Your task to perform on an android device: Search for sushi restaurants on Maps Image 0: 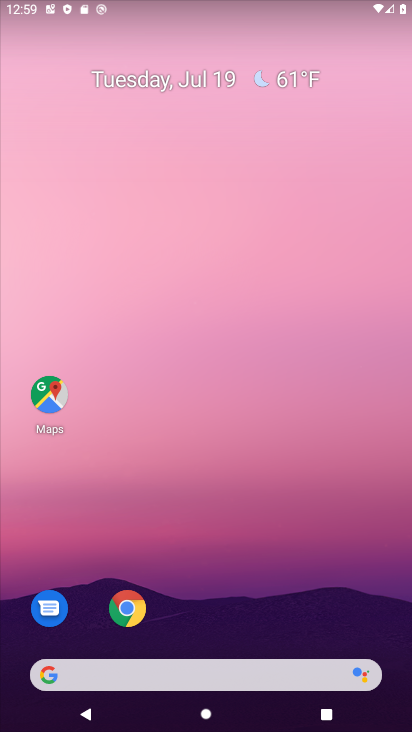
Step 0: drag from (294, 610) to (302, 2)
Your task to perform on an android device: Search for sushi restaurants on Maps Image 1: 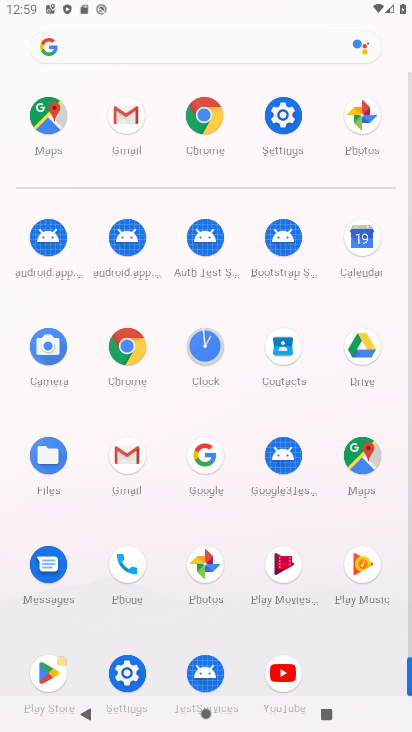
Step 1: click (355, 474)
Your task to perform on an android device: Search for sushi restaurants on Maps Image 2: 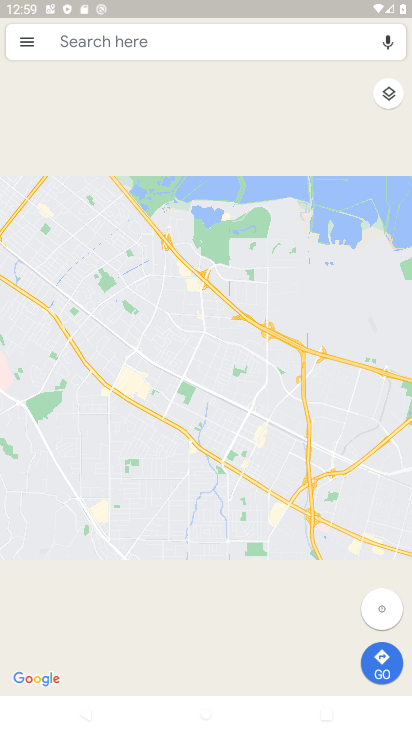
Step 2: click (142, 46)
Your task to perform on an android device: Search for sushi restaurants on Maps Image 3: 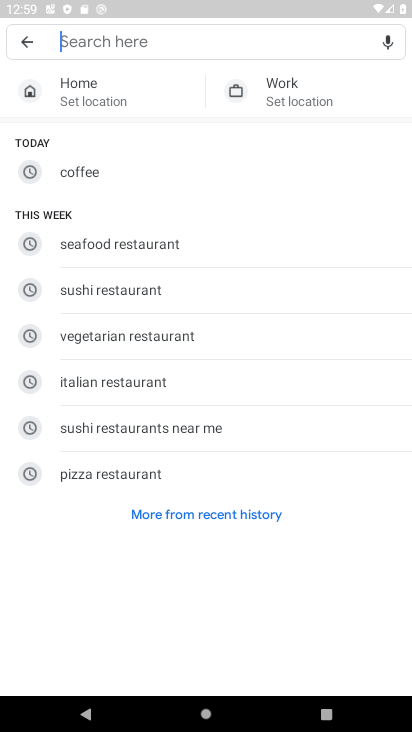
Step 3: click (142, 298)
Your task to perform on an android device: Search for sushi restaurants on Maps Image 4: 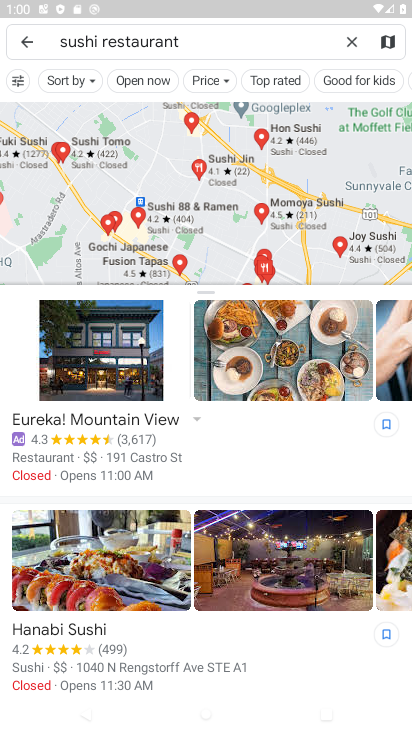
Step 4: task complete